Your task to perform on an android device: Open Chrome and go to the settings page Image 0: 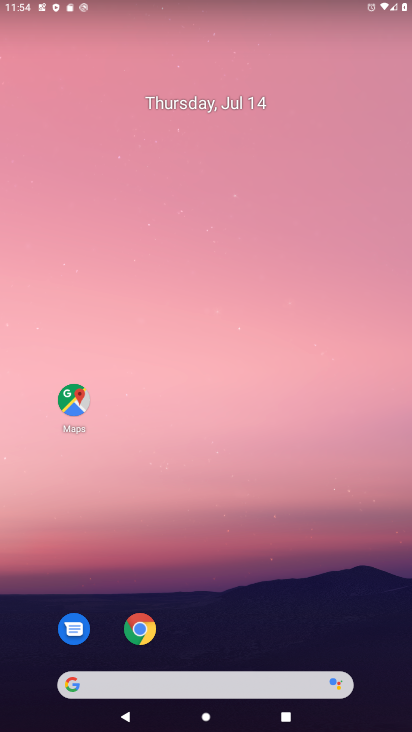
Step 0: press home button
Your task to perform on an android device: Open Chrome and go to the settings page Image 1: 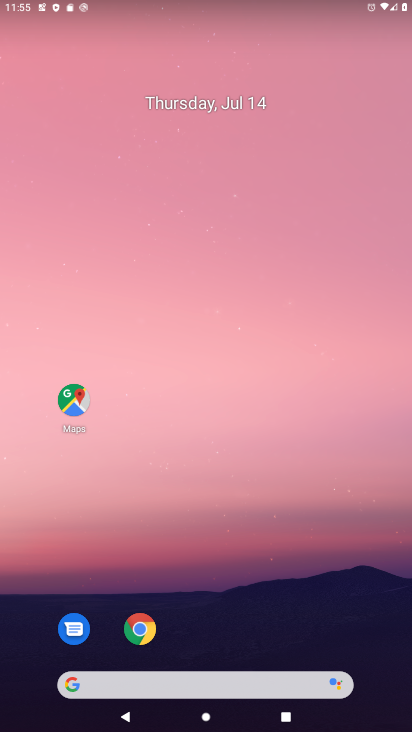
Step 1: drag from (266, 631) to (278, 9)
Your task to perform on an android device: Open Chrome and go to the settings page Image 2: 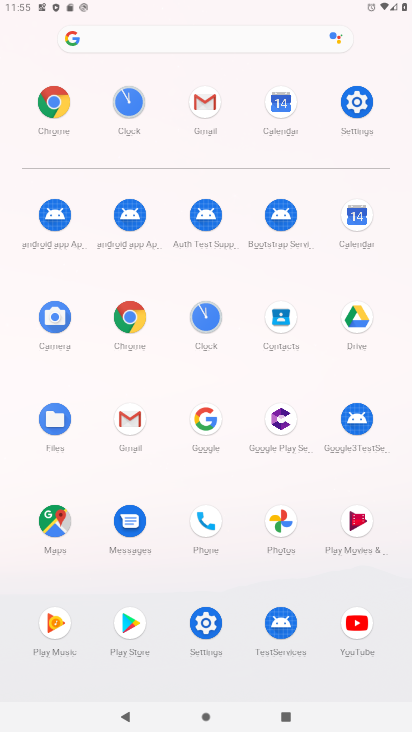
Step 2: click (49, 104)
Your task to perform on an android device: Open Chrome and go to the settings page Image 3: 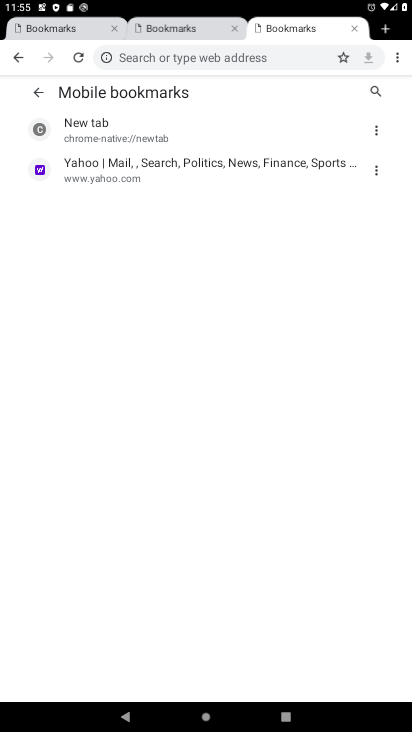
Step 3: click (20, 56)
Your task to perform on an android device: Open Chrome and go to the settings page Image 4: 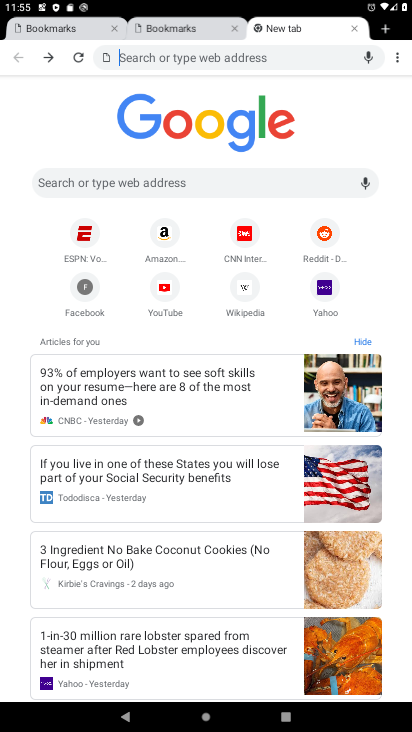
Step 4: click (397, 57)
Your task to perform on an android device: Open Chrome and go to the settings page Image 5: 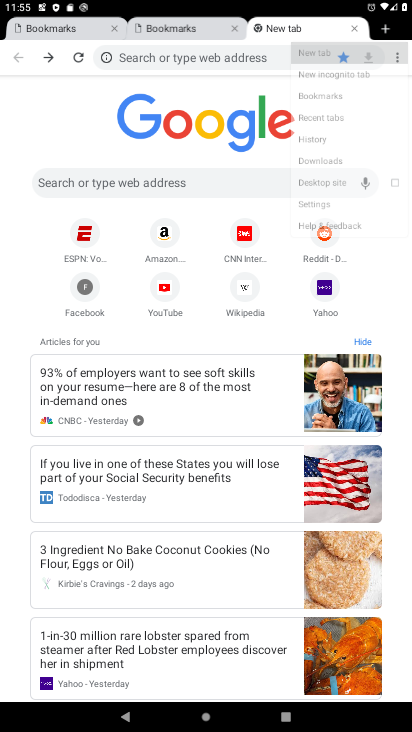
Step 5: task complete